Your task to perform on an android device: add a label to a message in the gmail app Image 0: 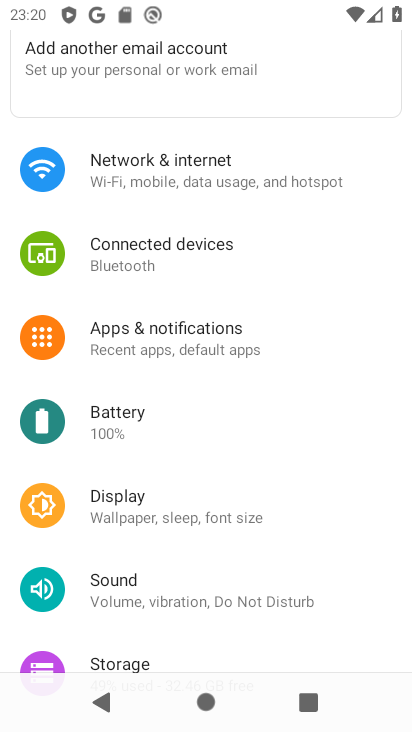
Step 0: press home button
Your task to perform on an android device: add a label to a message in the gmail app Image 1: 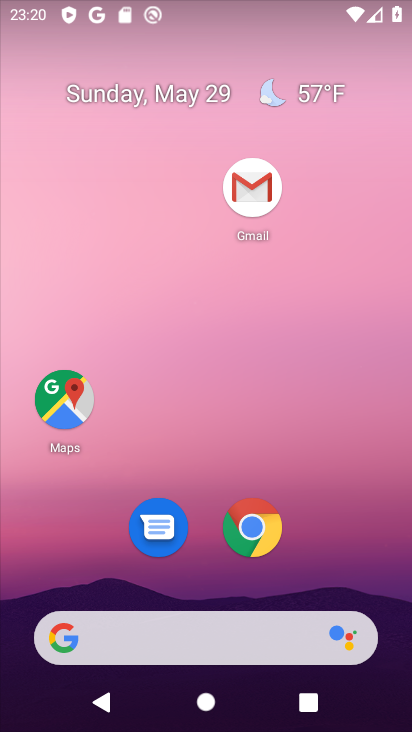
Step 1: click (251, 185)
Your task to perform on an android device: add a label to a message in the gmail app Image 2: 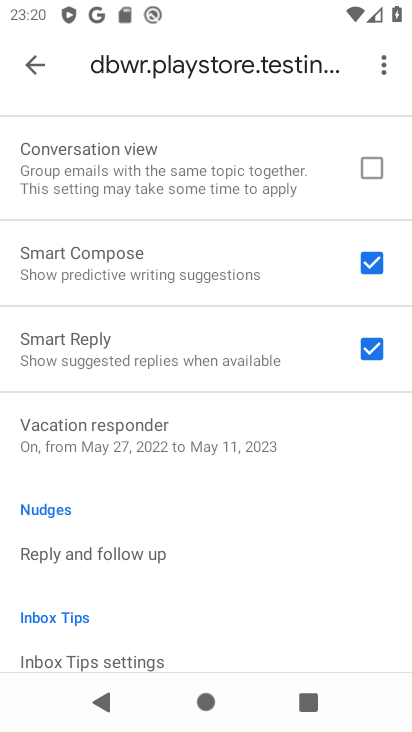
Step 2: press back button
Your task to perform on an android device: add a label to a message in the gmail app Image 3: 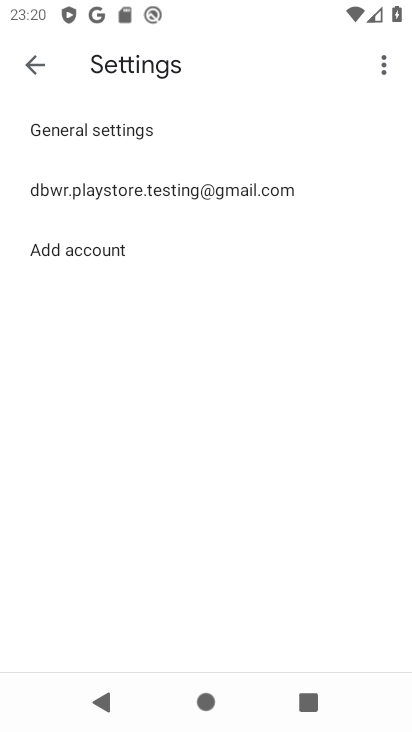
Step 3: press back button
Your task to perform on an android device: add a label to a message in the gmail app Image 4: 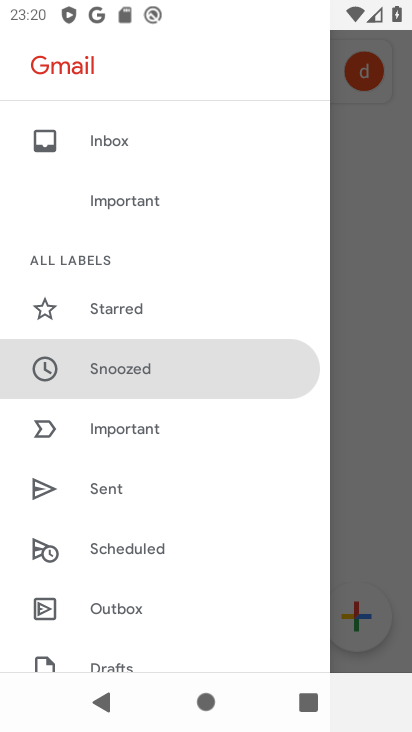
Step 4: click (105, 141)
Your task to perform on an android device: add a label to a message in the gmail app Image 5: 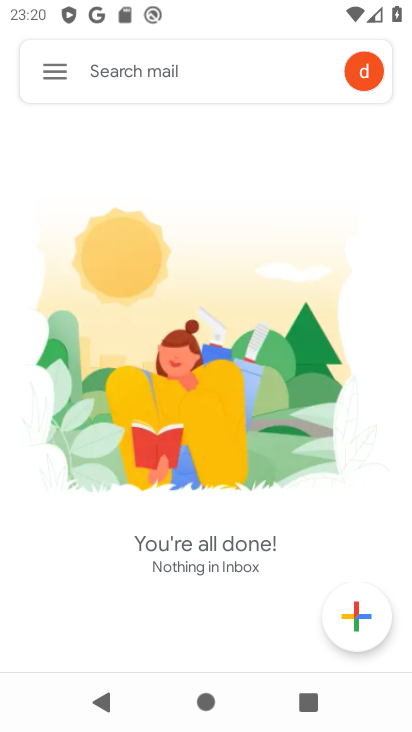
Step 5: click (53, 76)
Your task to perform on an android device: add a label to a message in the gmail app Image 6: 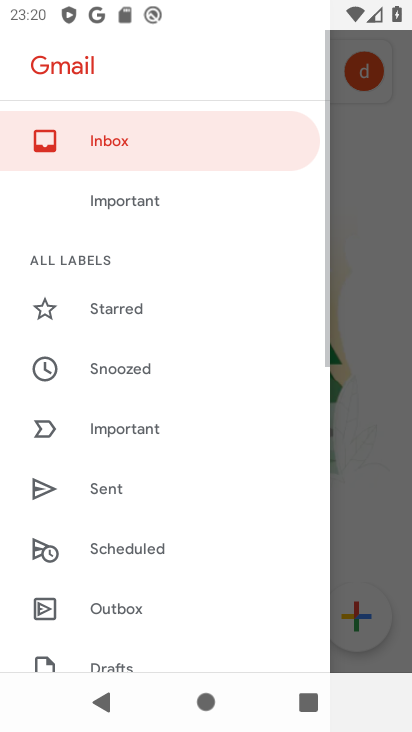
Step 6: drag from (127, 398) to (166, 321)
Your task to perform on an android device: add a label to a message in the gmail app Image 7: 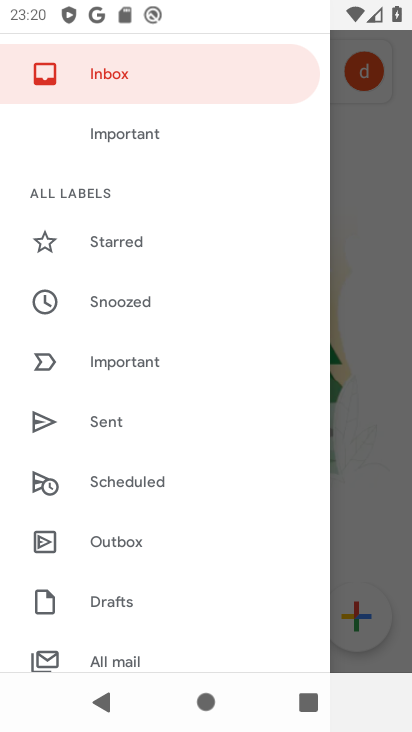
Step 7: drag from (141, 437) to (176, 352)
Your task to perform on an android device: add a label to a message in the gmail app Image 8: 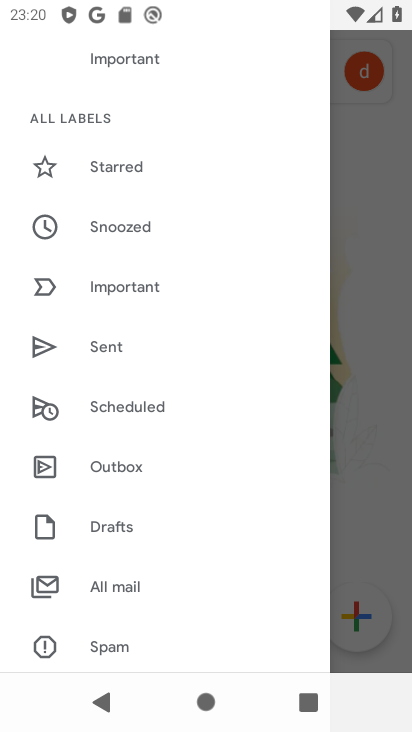
Step 8: drag from (137, 435) to (179, 363)
Your task to perform on an android device: add a label to a message in the gmail app Image 9: 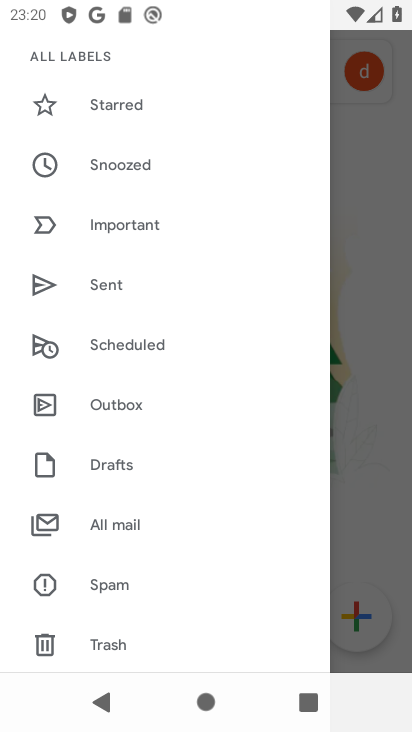
Step 9: drag from (115, 481) to (158, 413)
Your task to perform on an android device: add a label to a message in the gmail app Image 10: 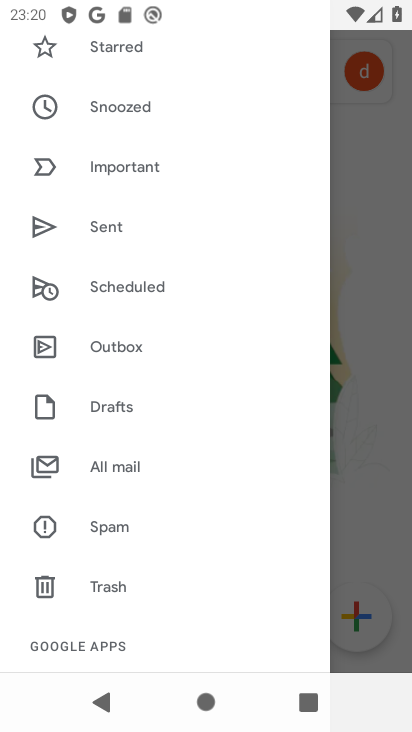
Step 10: click (138, 473)
Your task to perform on an android device: add a label to a message in the gmail app Image 11: 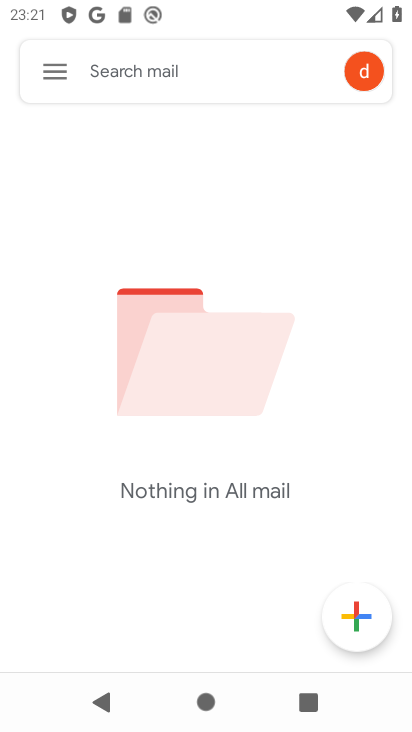
Step 11: task complete